Your task to perform on an android device: What is the recent news? Image 0: 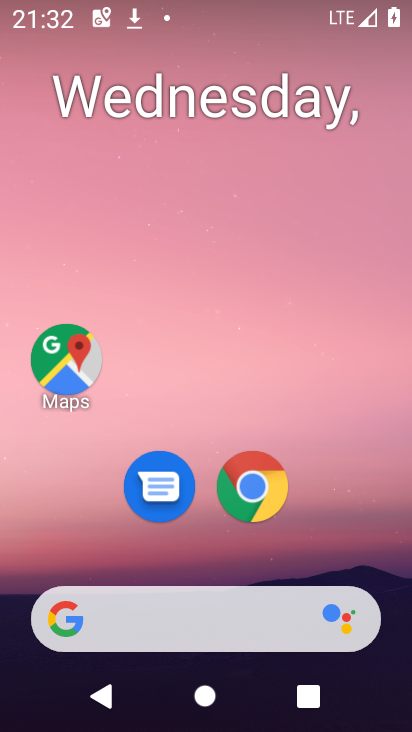
Step 0: click (174, 615)
Your task to perform on an android device: What is the recent news? Image 1: 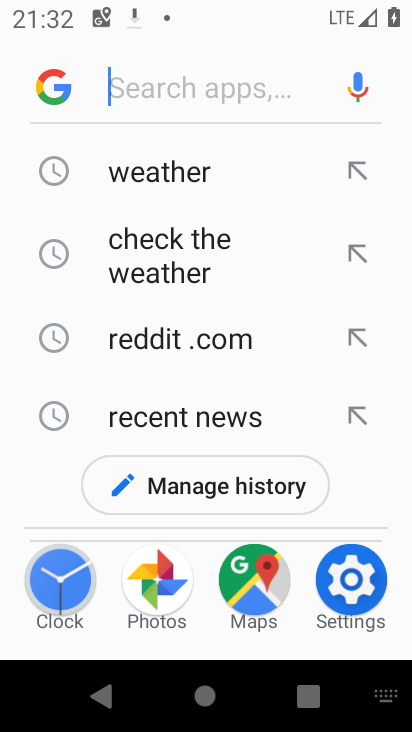
Step 1: click (203, 94)
Your task to perform on an android device: What is the recent news? Image 2: 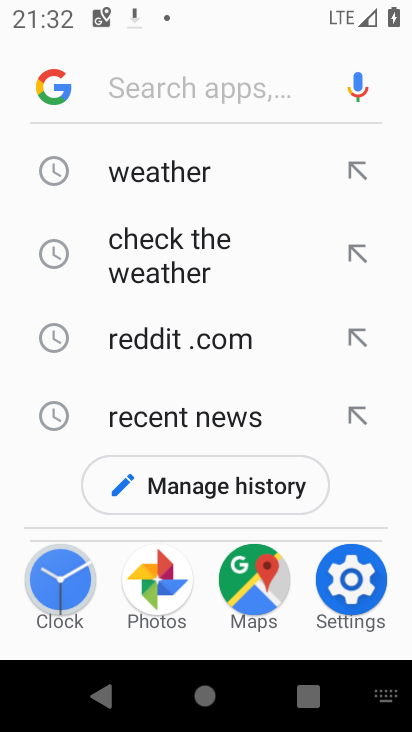
Step 2: type "recent news"
Your task to perform on an android device: What is the recent news? Image 3: 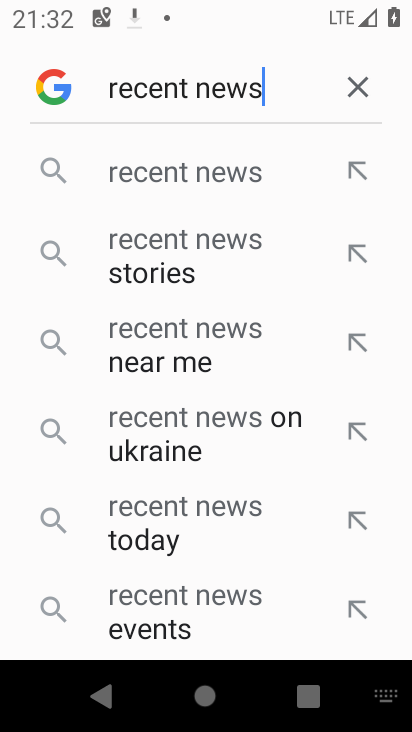
Step 3: click (188, 176)
Your task to perform on an android device: What is the recent news? Image 4: 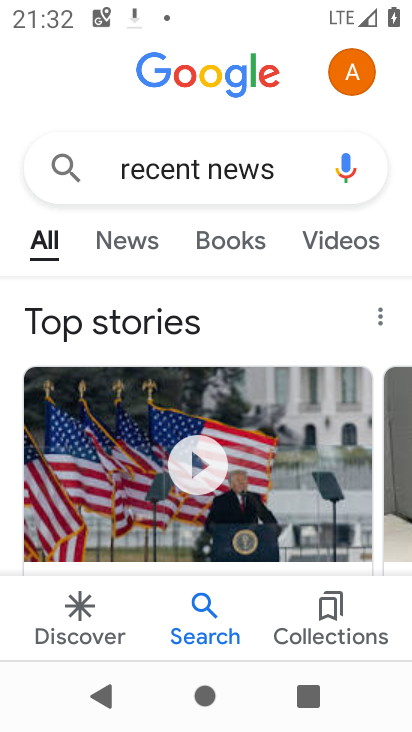
Step 4: task complete